Your task to perform on an android device: Open settings Image 0: 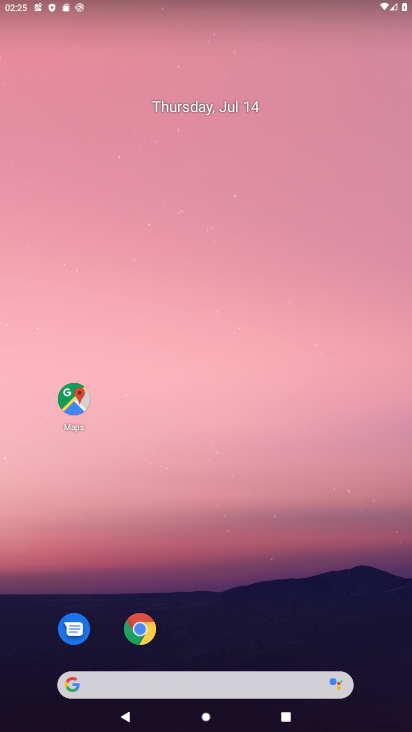
Step 0: drag from (173, 583) to (200, 0)
Your task to perform on an android device: Open settings Image 1: 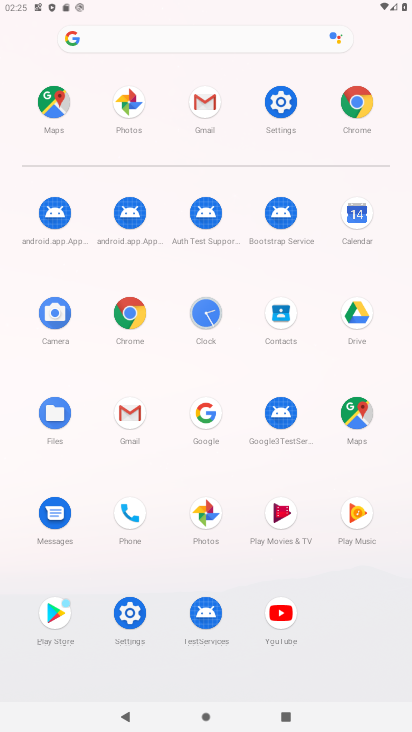
Step 1: click (282, 110)
Your task to perform on an android device: Open settings Image 2: 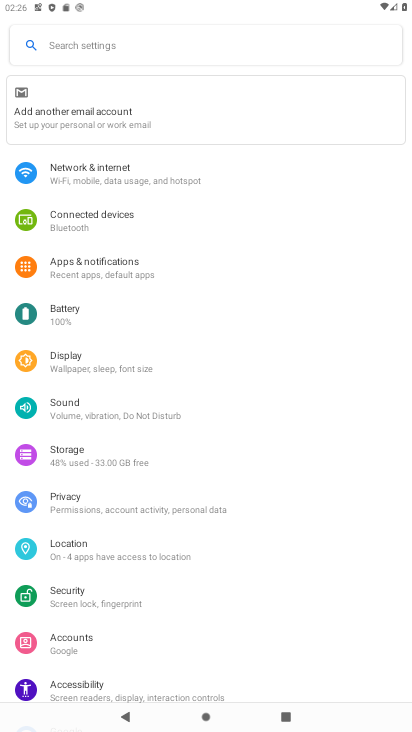
Step 2: task complete